Your task to perform on an android device: add a contact in the contacts app Image 0: 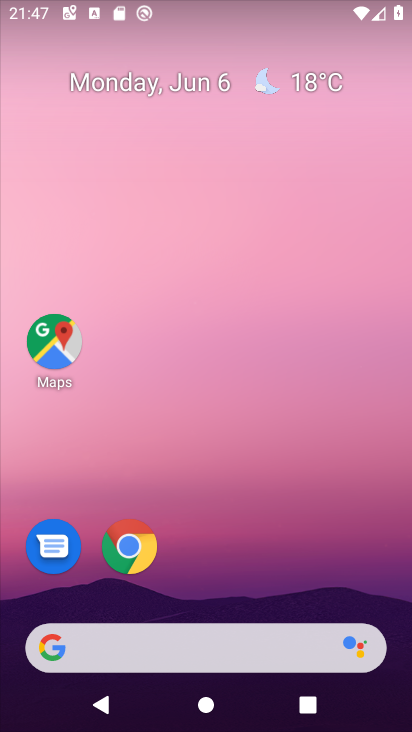
Step 0: drag from (384, 600) to (291, 169)
Your task to perform on an android device: add a contact in the contacts app Image 1: 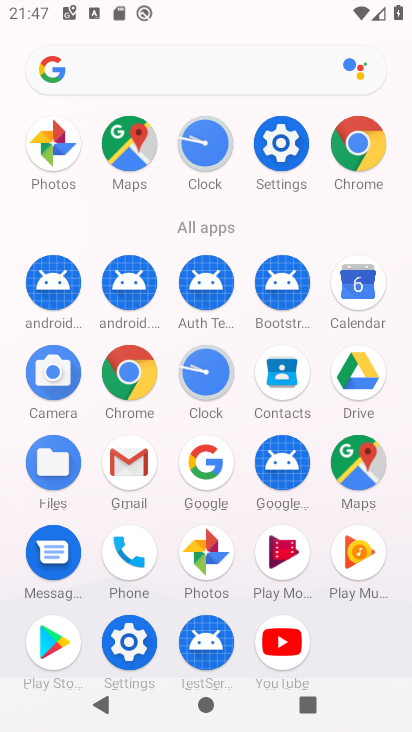
Step 1: click (283, 367)
Your task to perform on an android device: add a contact in the contacts app Image 2: 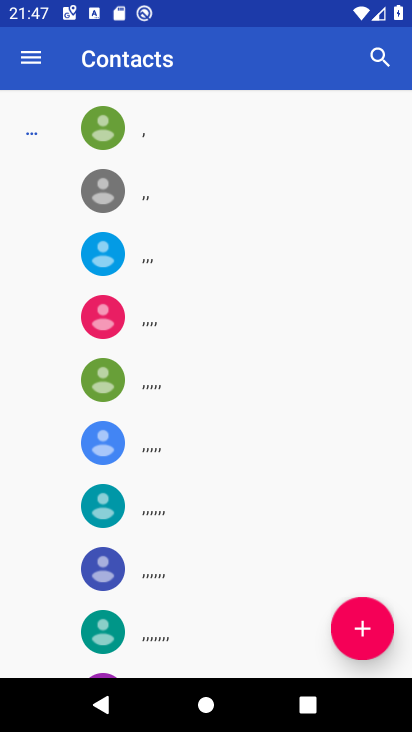
Step 2: click (356, 601)
Your task to perform on an android device: add a contact in the contacts app Image 3: 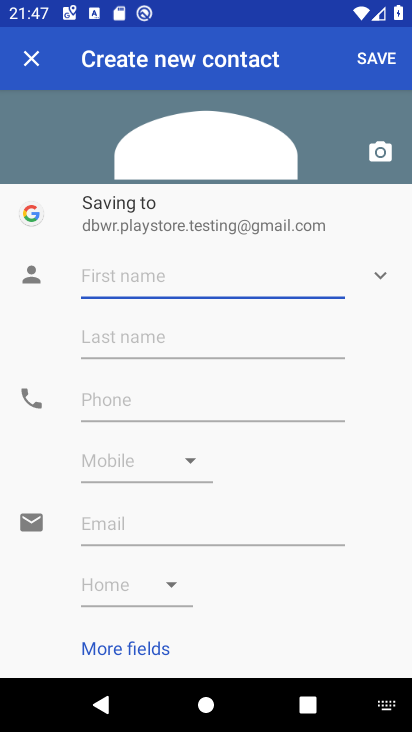
Step 3: type ""
Your task to perform on an android device: add a contact in the contacts app Image 4: 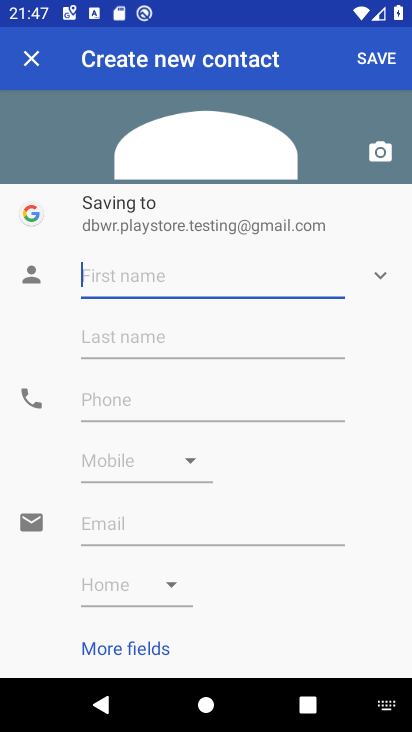
Step 4: type "kgfdfjfgjj"
Your task to perform on an android device: add a contact in the contacts app Image 5: 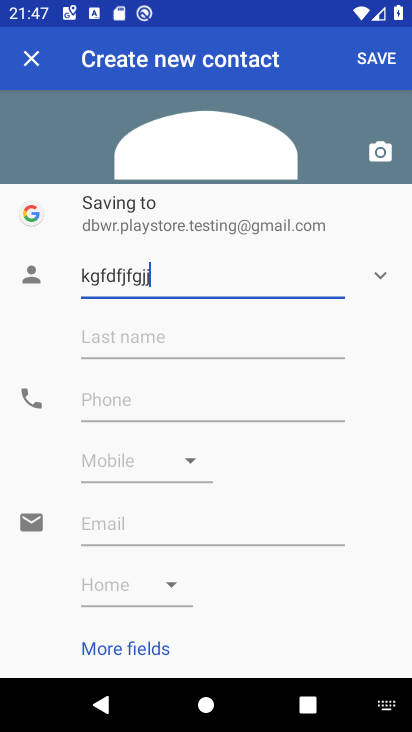
Step 5: click (142, 394)
Your task to perform on an android device: add a contact in the contacts app Image 6: 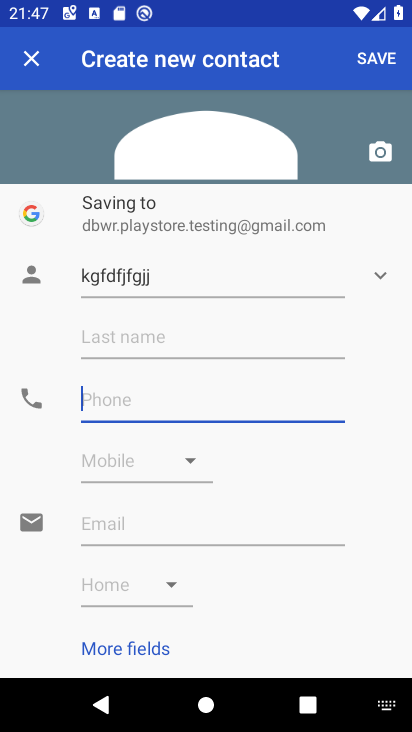
Step 6: type "098765423456"
Your task to perform on an android device: add a contact in the contacts app Image 7: 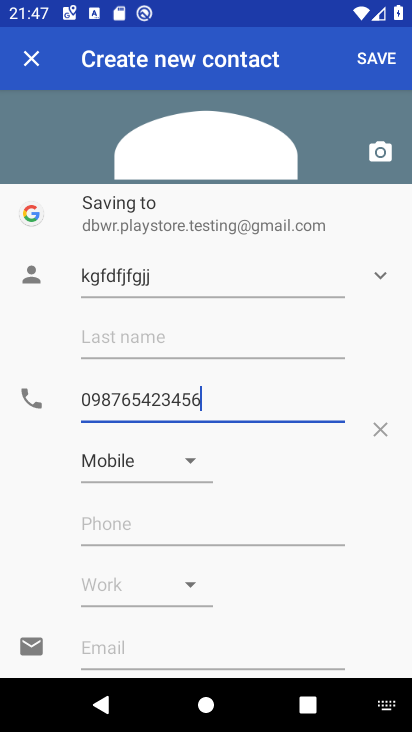
Step 7: click (187, 461)
Your task to perform on an android device: add a contact in the contacts app Image 8: 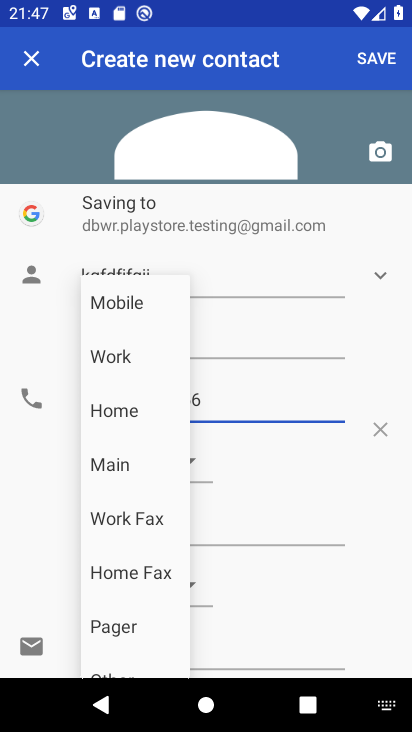
Step 8: click (120, 362)
Your task to perform on an android device: add a contact in the contacts app Image 9: 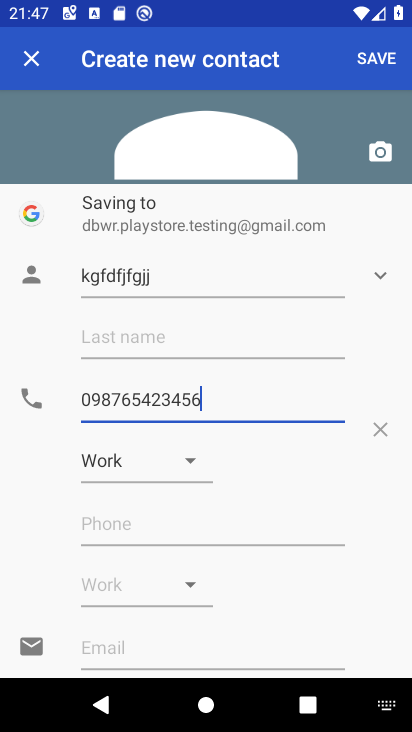
Step 9: click (380, 55)
Your task to perform on an android device: add a contact in the contacts app Image 10: 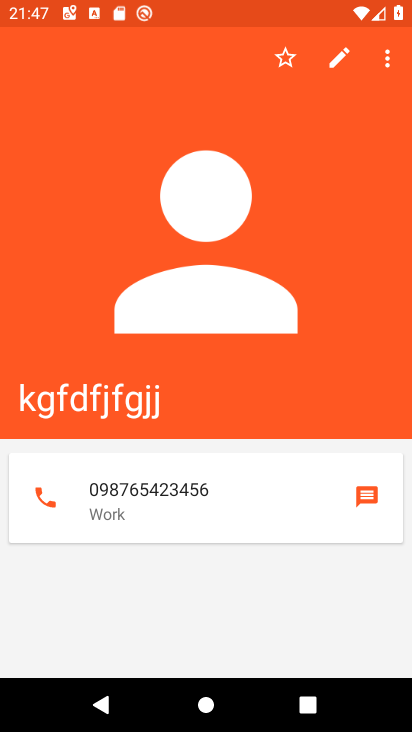
Step 10: task complete